Your task to perform on an android device: open app "DoorDash - Dasher" (install if not already installed), go to login, and select forgot password Image 0: 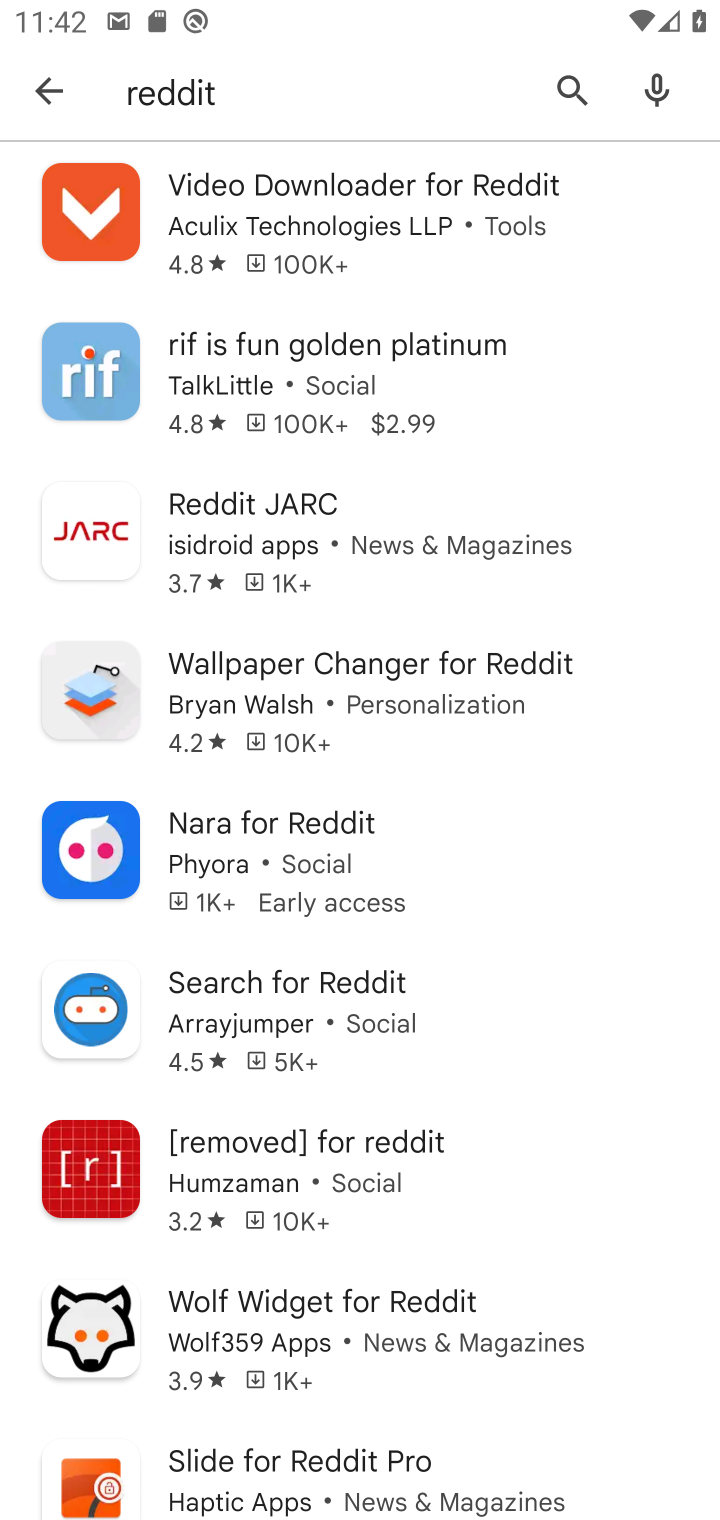
Step 0: click (559, 84)
Your task to perform on an android device: open app "DoorDash - Dasher" (install if not already installed), go to login, and select forgot password Image 1: 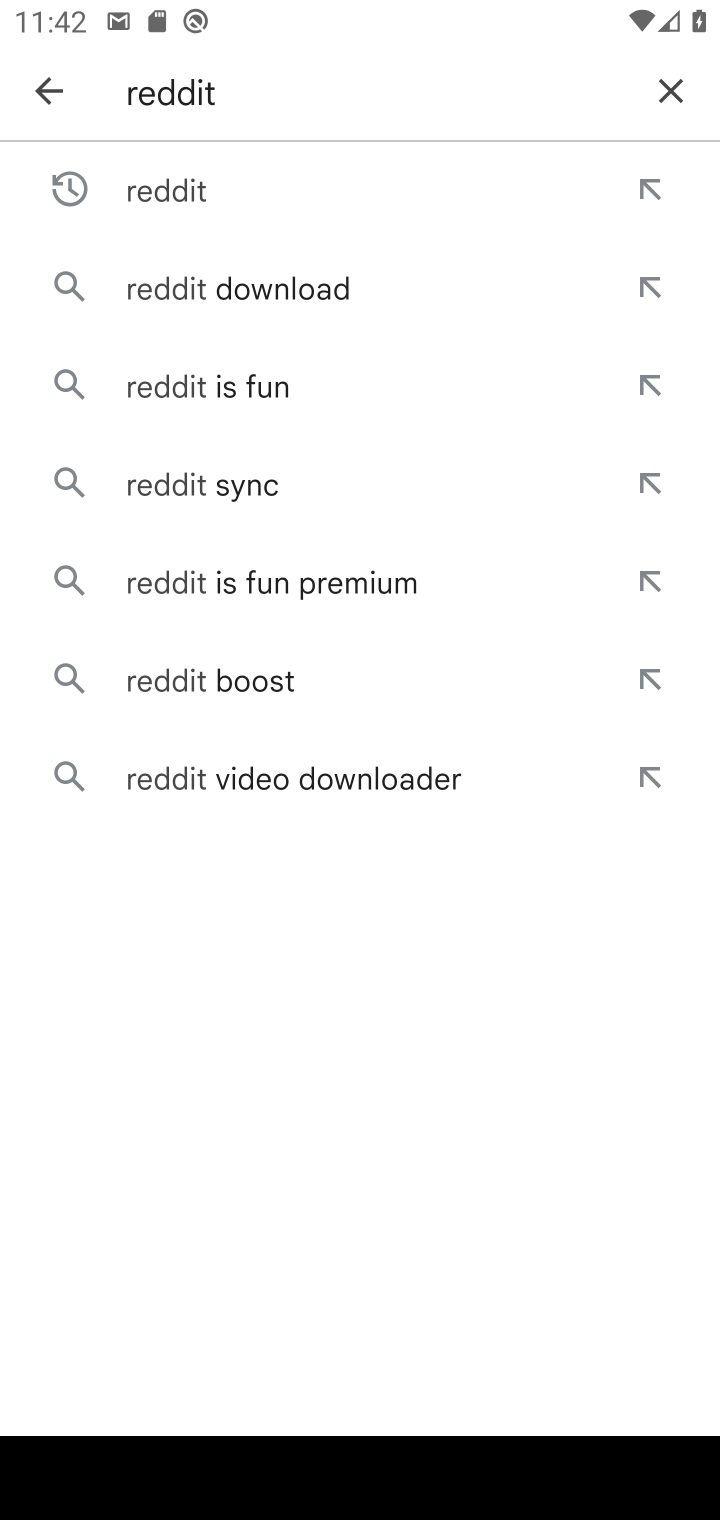
Step 1: click (663, 80)
Your task to perform on an android device: open app "DoorDash - Dasher" (install if not already installed), go to login, and select forgot password Image 2: 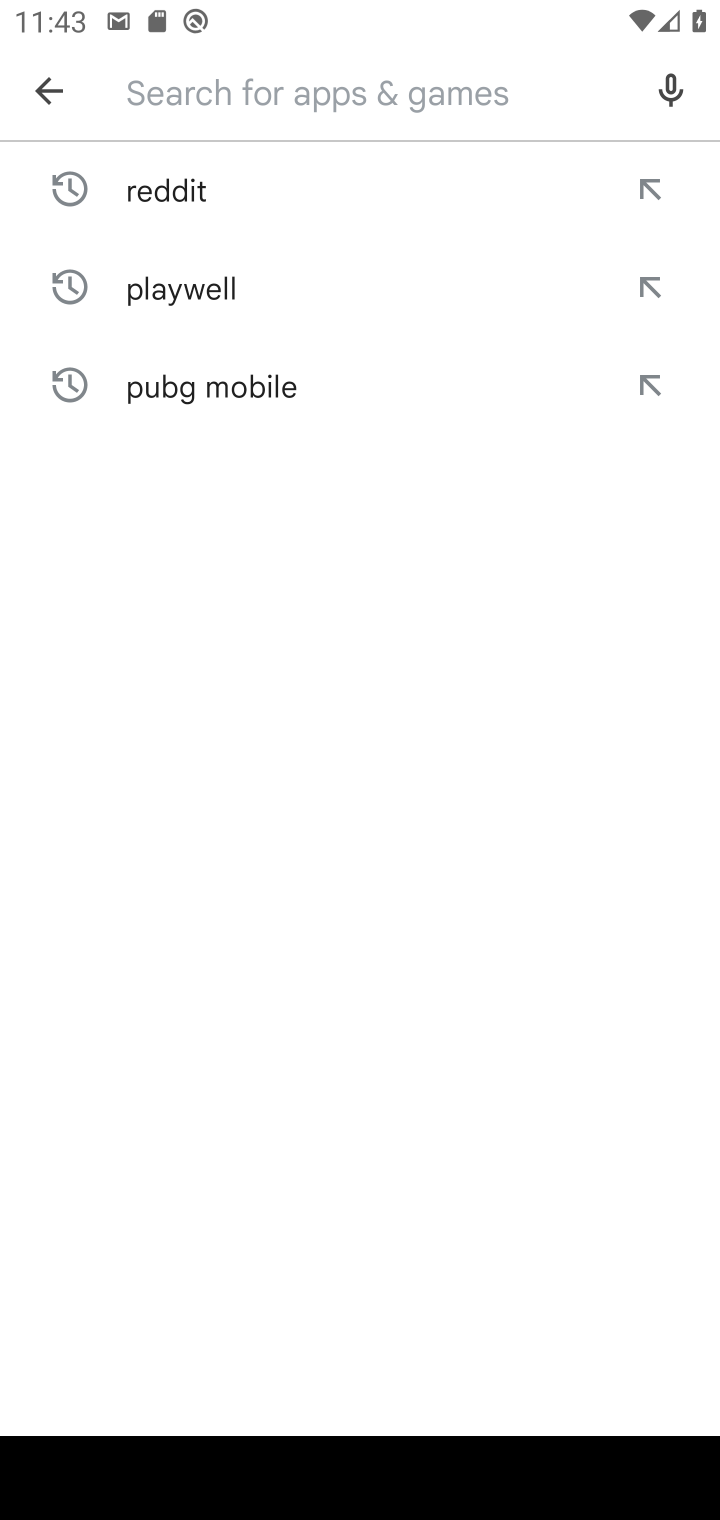
Step 2: type "DoorDash - Dasher"
Your task to perform on an android device: open app "DoorDash - Dasher" (install if not already installed), go to login, and select forgot password Image 3: 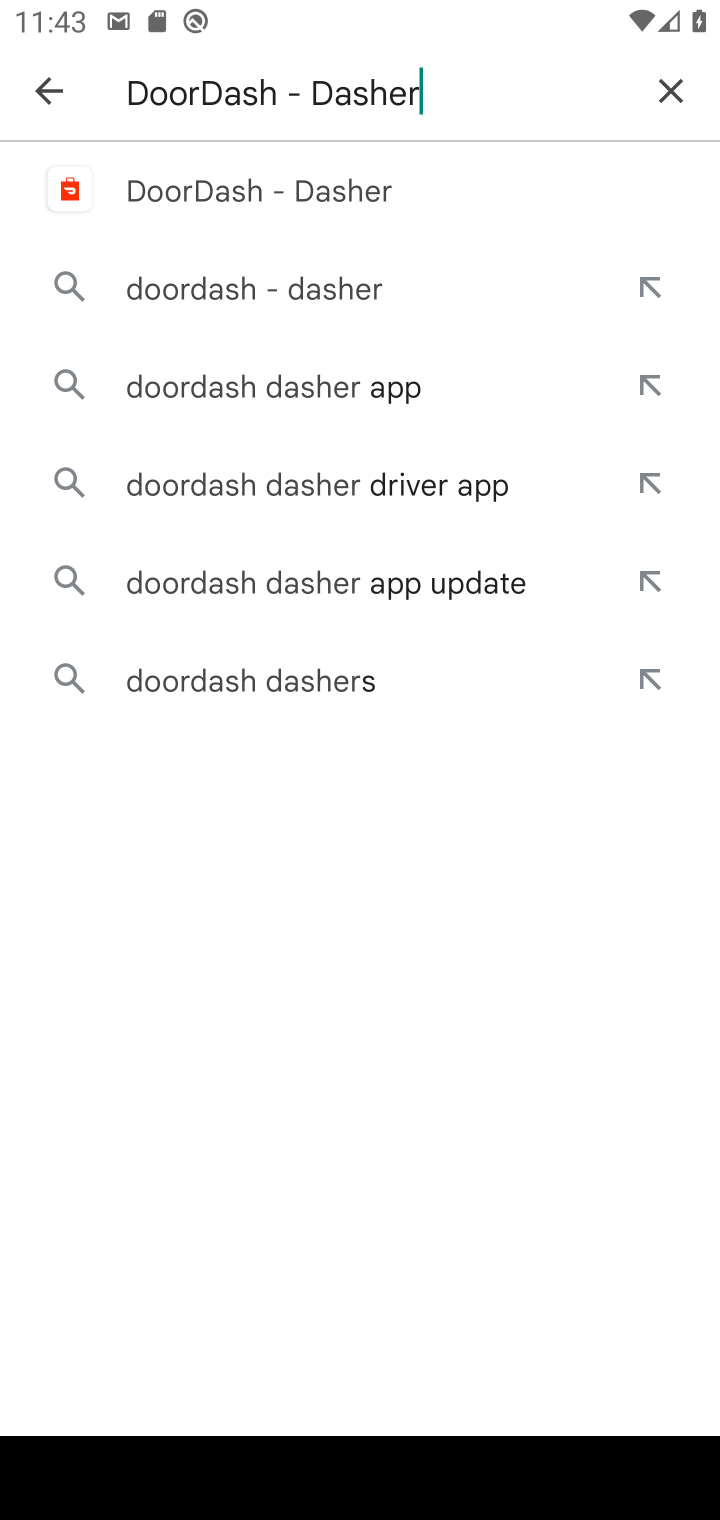
Step 3: click (230, 192)
Your task to perform on an android device: open app "DoorDash - Dasher" (install if not already installed), go to login, and select forgot password Image 4: 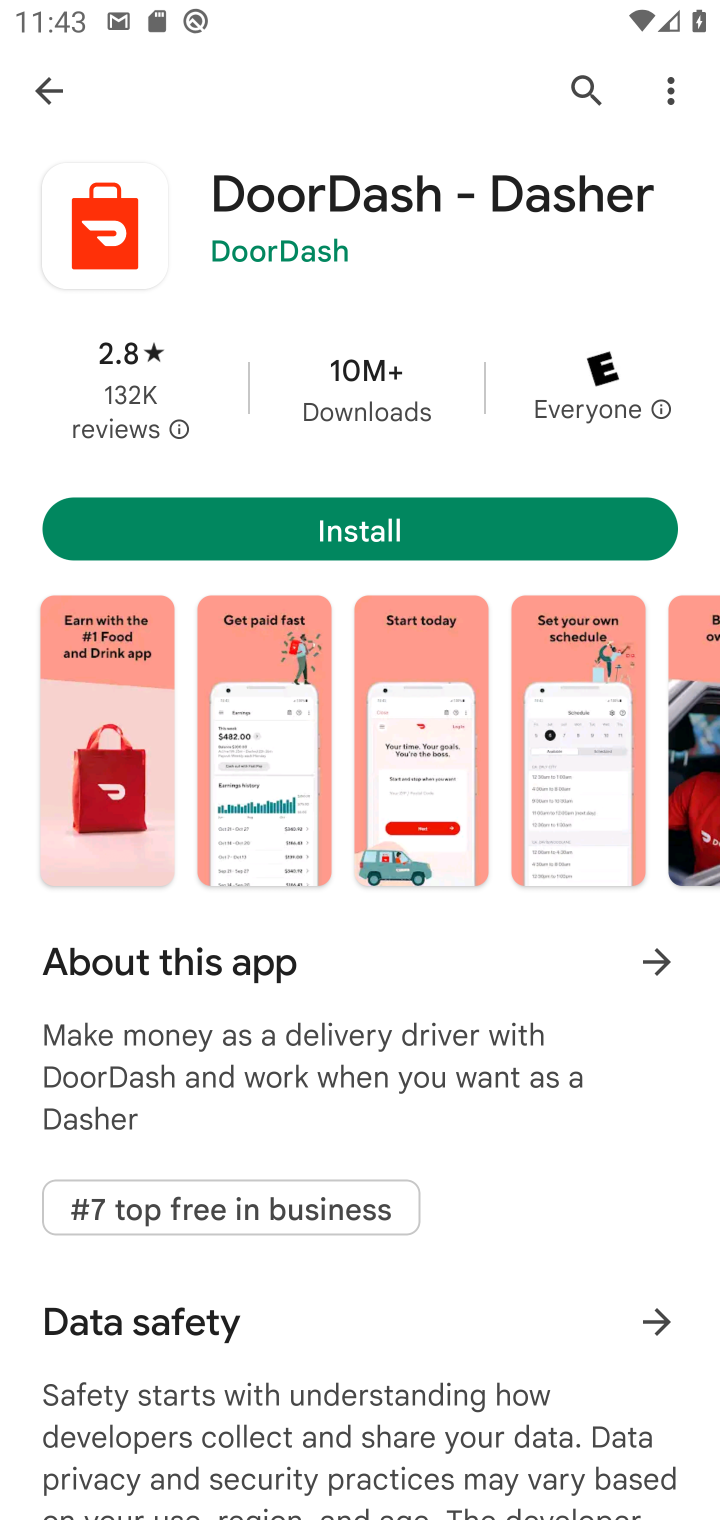
Step 4: click (365, 539)
Your task to perform on an android device: open app "DoorDash - Dasher" (install if not already installed), go to login, and select forgot password Image 5: 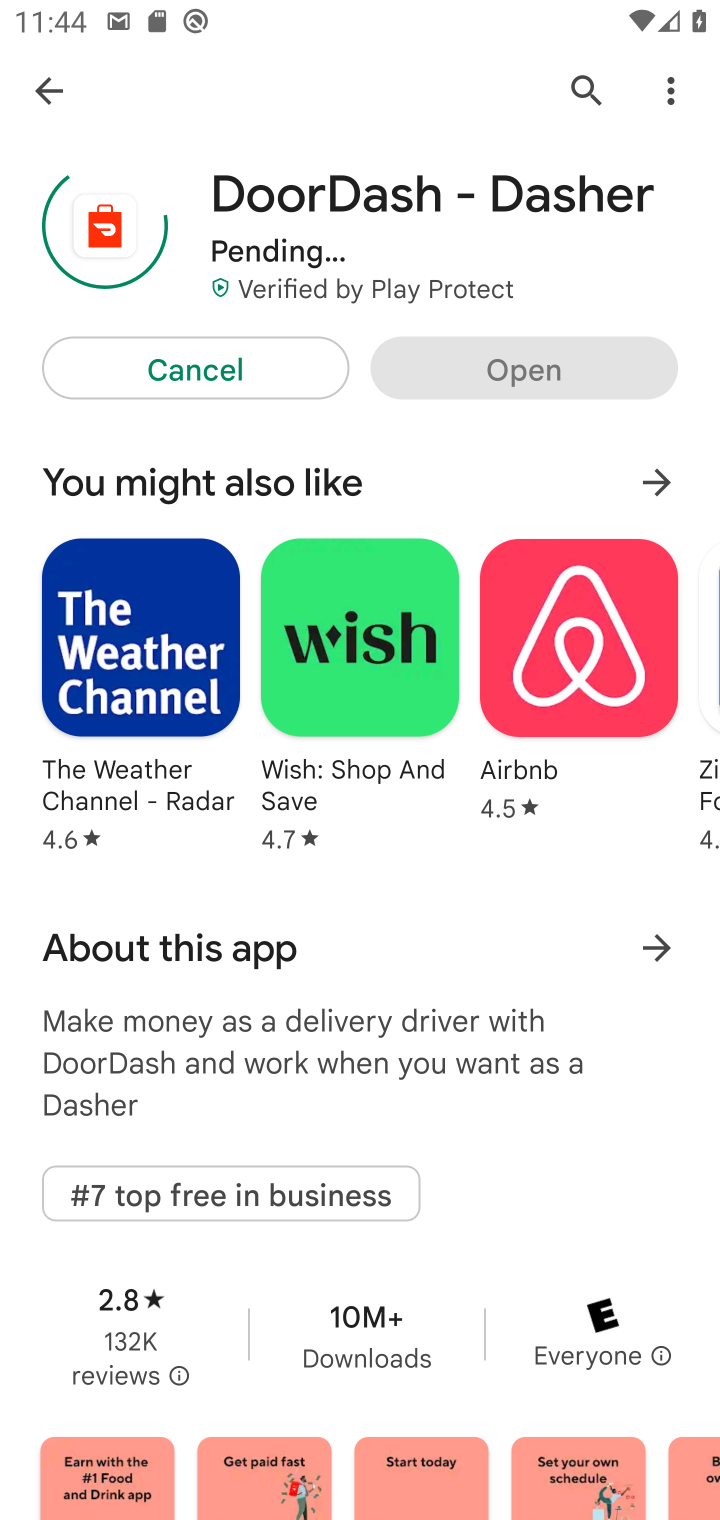
Step 5: task complete